Your task to perform on an android device: create a new album in the google photos Image 0: 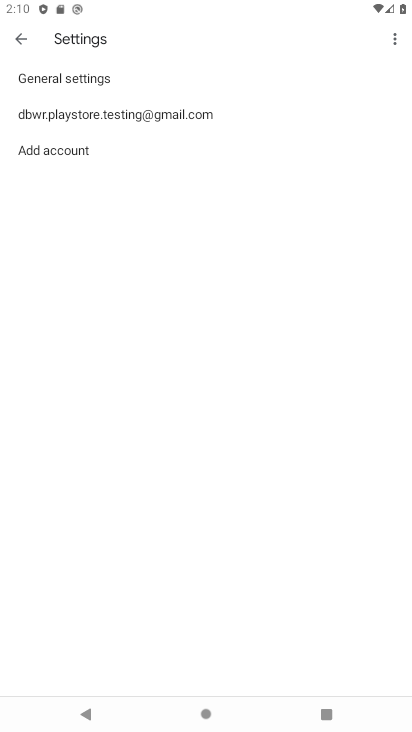
Step 0: press home button
Your task to perform on an android device: create a new album in the google photos Image 1: 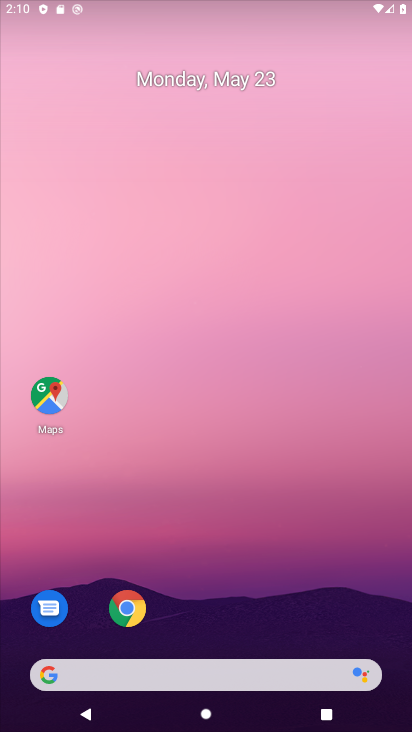
Step 1: drag from (232, 583) to (253, 290)
Your task to perform on an android device: create a new album in the google photos Image 2: 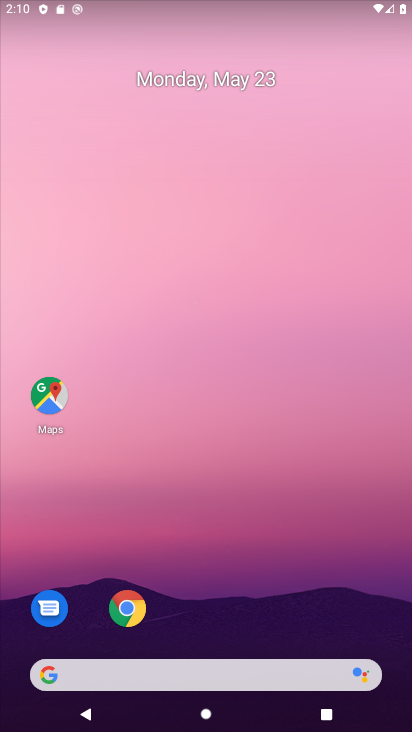
Step 2: drag from (213, 553) to (225, 298)
Your task to perform on an android device: create a new album in the google photos Image 3: 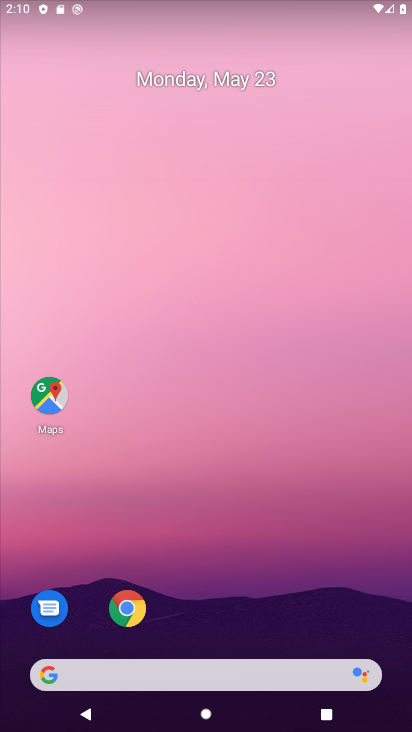
Step 3: drag from (217, 637) to (236, 113)
Your task to perform on an android device: create a new album in the google photos Image 4: 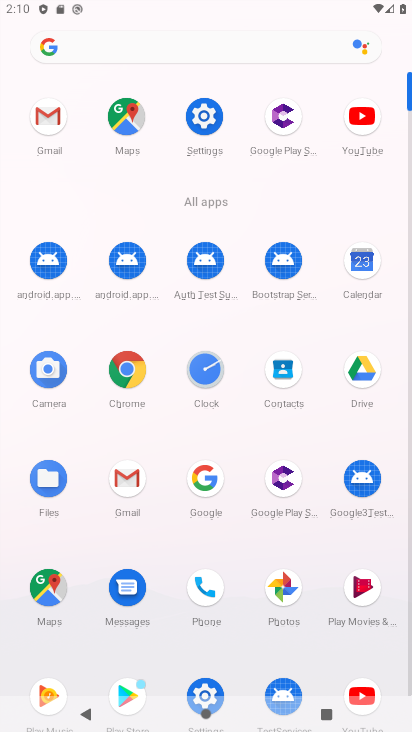
Step 4: click (276, 584)
Your task to perform on an android device: create a new album in the google photos Image 5: 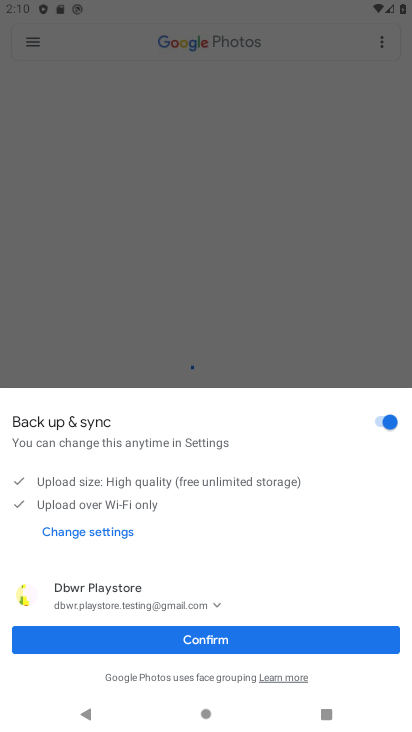
Step 5: click (194, 633)
Your task to perform on an android device: create a new album in the google photos Image 6: 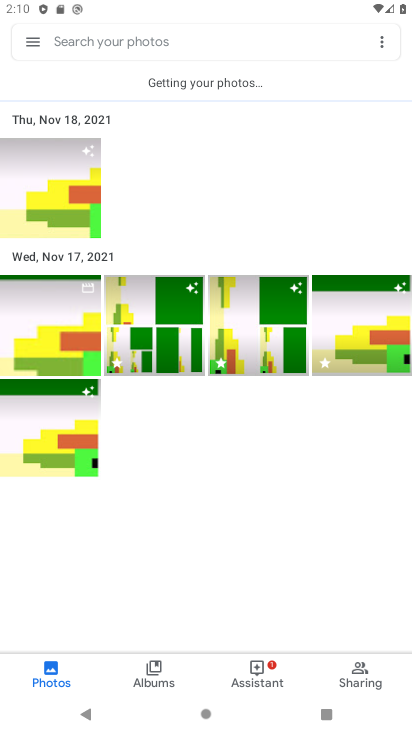
Step 6: click (75, 201)
Your task to perform on an android device: create a new album in the google photos Image 7: 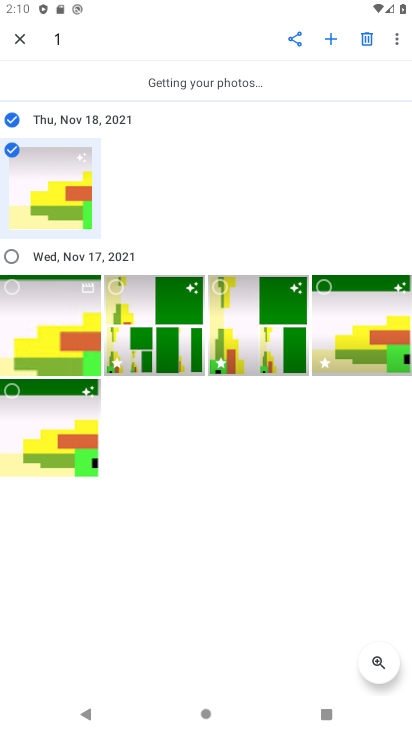
Step 7: click (325, 30)
Your task to perform on an android device: create a new album in the google photos Image 8: 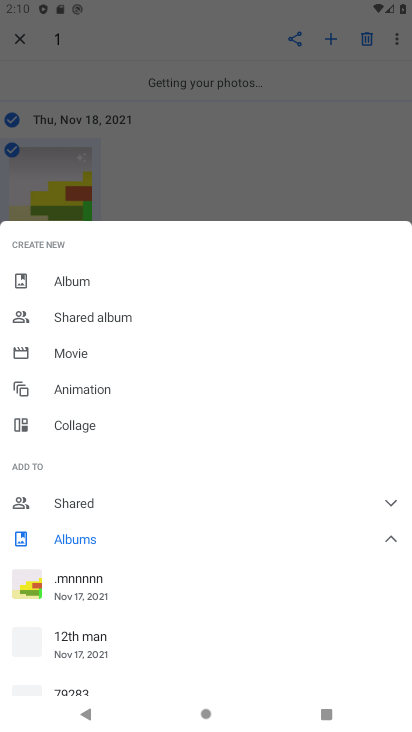
Step 8: click (97, 281)
Your task to perform on an android device: create a new album in the google photos Image 9: 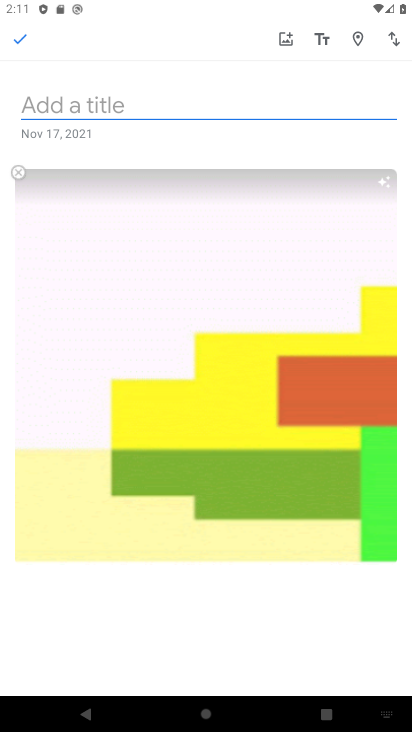
Step 9: click (183, 94)
Your task to perform on an android device: create a new album in the google photos Image 10: 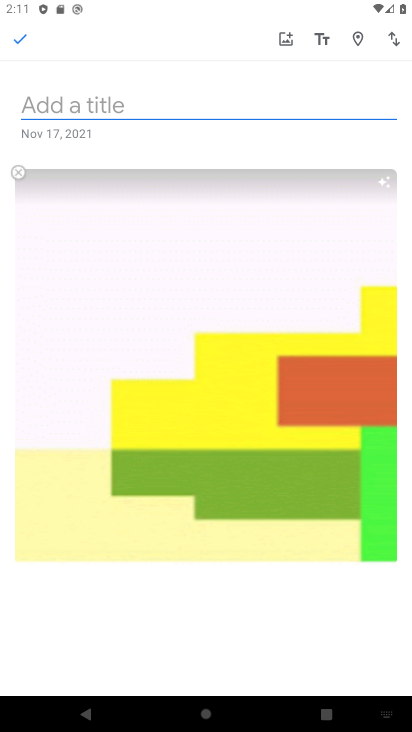
Step 10: type "kjkjkjkfff"
Your task to perform on an android device: create a new album in the google photos Image 11: 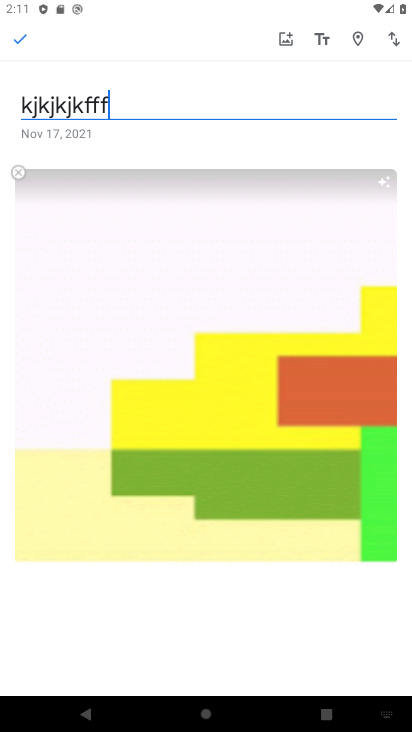
Step 11: click (15, 46)
Your task to perform on an android device: create a new album in the google photos Image 12: 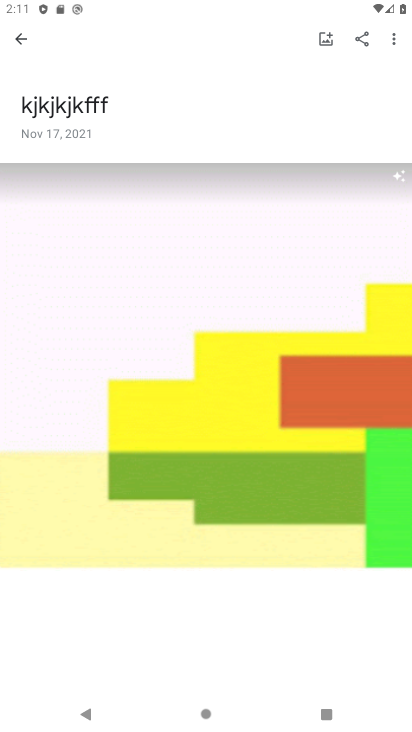
Step 12: task complete